Your task to perform on an android device: turn on priority inbox in the gmail app Image 0: 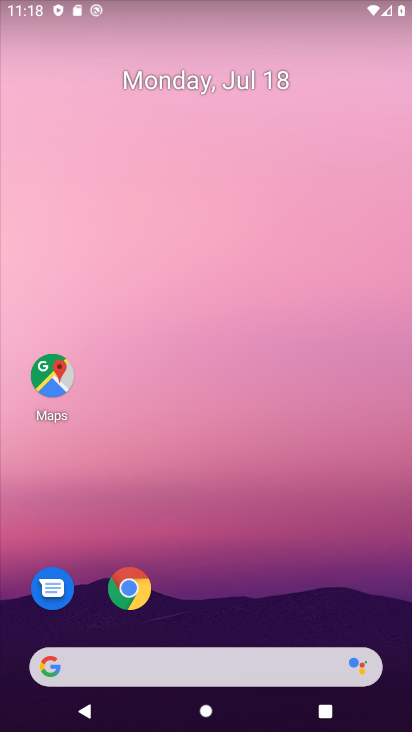
Step 0: drag from (256, 351) to (242, 46)
Your task to perform on an android device: turn on priority inbox in the gmail app Image 1: 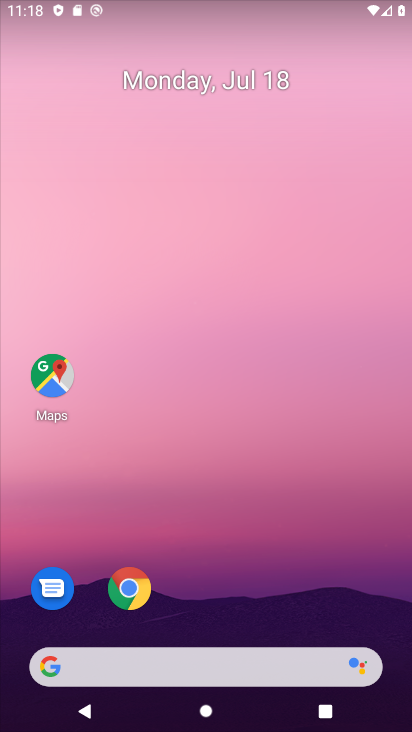
Step 1: drag from (208, 541) to (253, 17)
Your task to perform on an android device: turn on priority inbox in the gmail app Image 2: 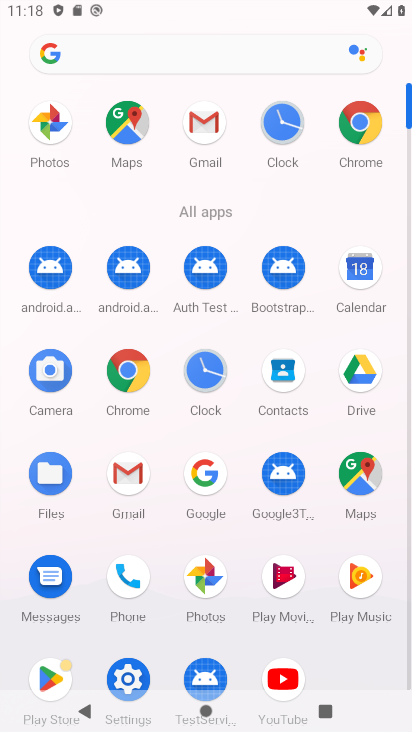
Step 2: click (193, 132)
Your task to perform on an android device: turn on priority inbox in the gmail app Image 3: 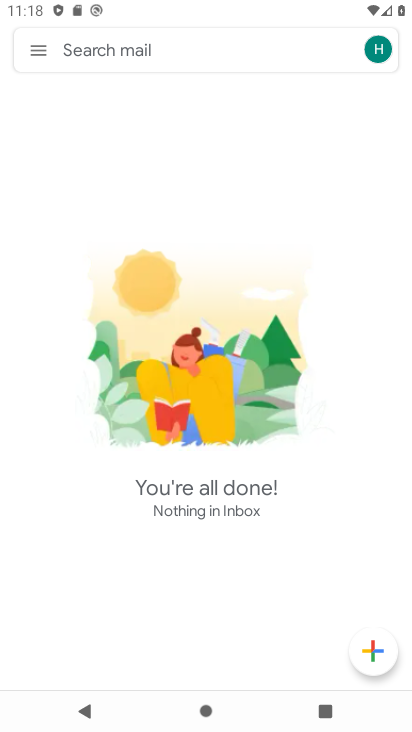
Step 3: click (34, 51)
Your task to perform on an android device: turn on priority inbox in the gmail app Image 4: 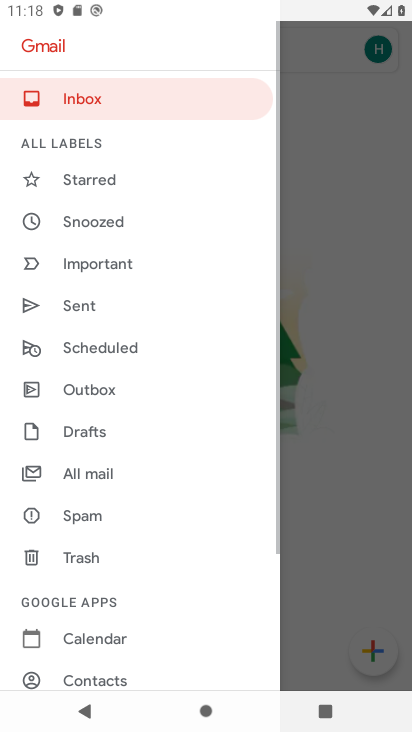
Step 4: drag from (142, 499) to (200, 102)
Your task to perform on an android device: turn on priority inbox in the gmail app Image 5: 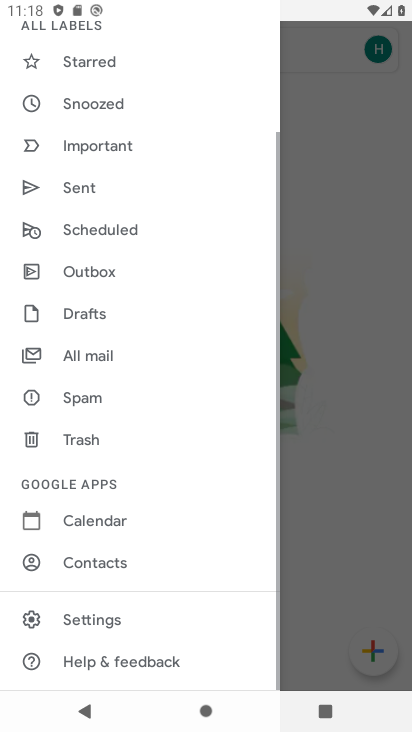
Step 5: click (125, 623)
Your task to perform on an android device: turn on priority inbox in the gmail app Image 6: 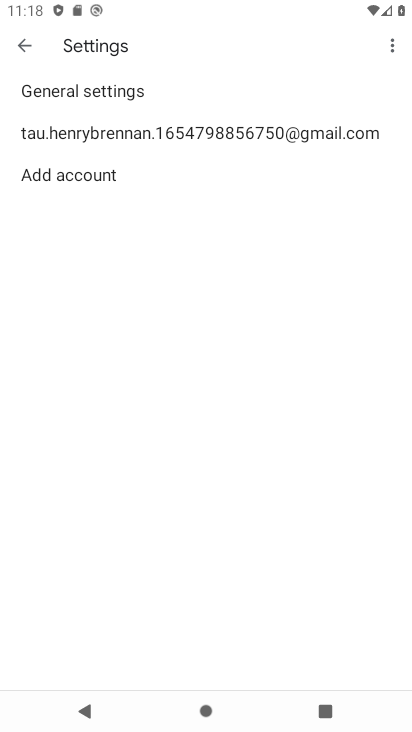
Step 6: click (94, 127)
Your task to perform on an android device: turn on priority inbox in the gmail app Image 7: 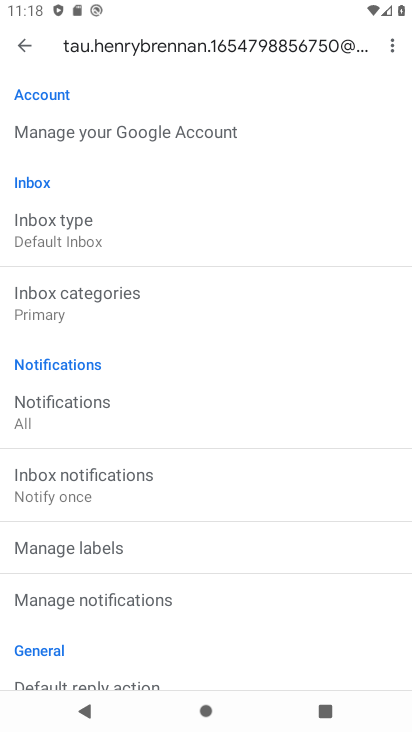
Step 7: click (45, 248)
Your task to perform on an android device: turn on priority inbox in the gmail app Image 8: 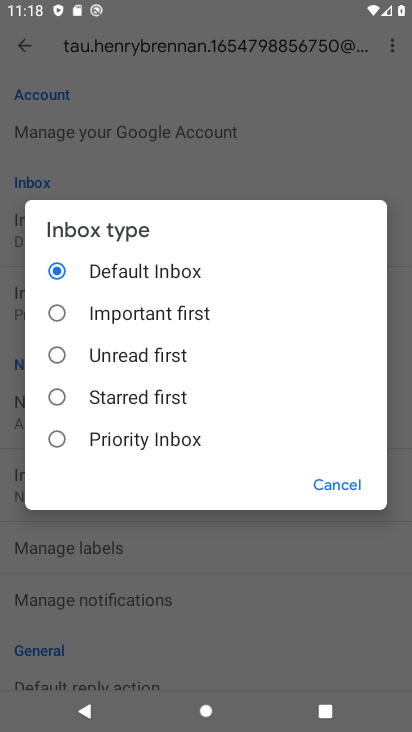
Step 8: click (125, 455)
Your task to perform on an android device: turn on priority inbox in the gmail app Image 9: 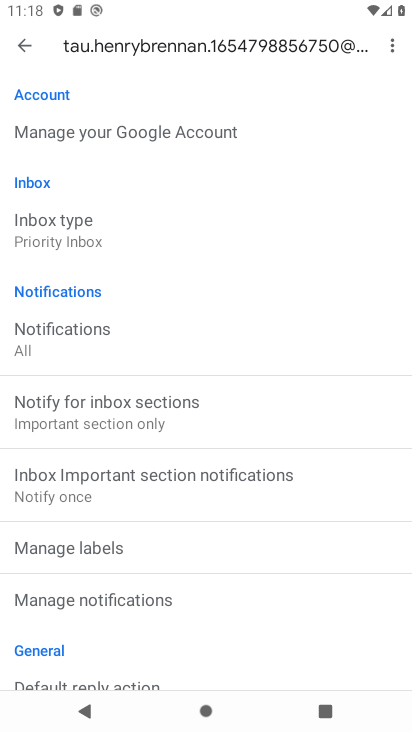
Step 9: task complete